Your task to perform on an android device: turn on improve location accuracy Image 0: 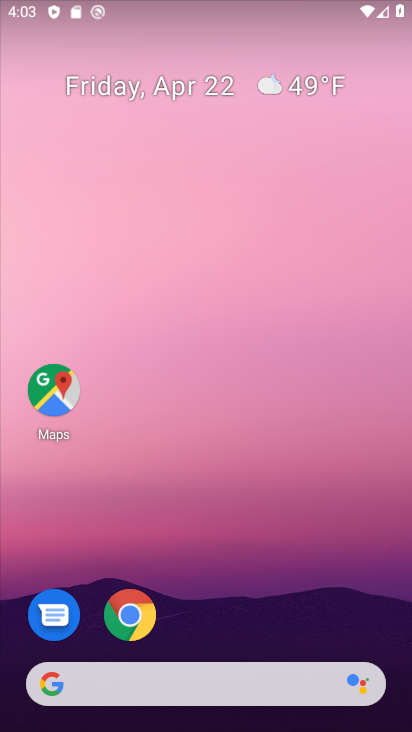
Step 0: drag from (209, 621) to (220, 245)
Your task to perform on an android device: turn on improve location accuracy Image 1: 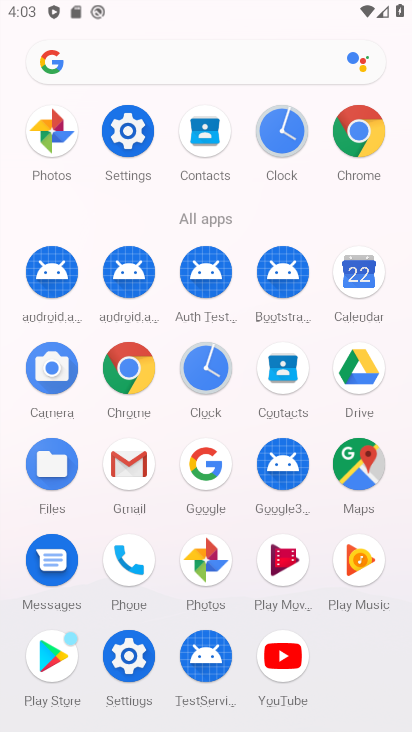
Step 1: click (109, 127)
Your task to perform on an android device: turn on improve location accuracy Image 2: 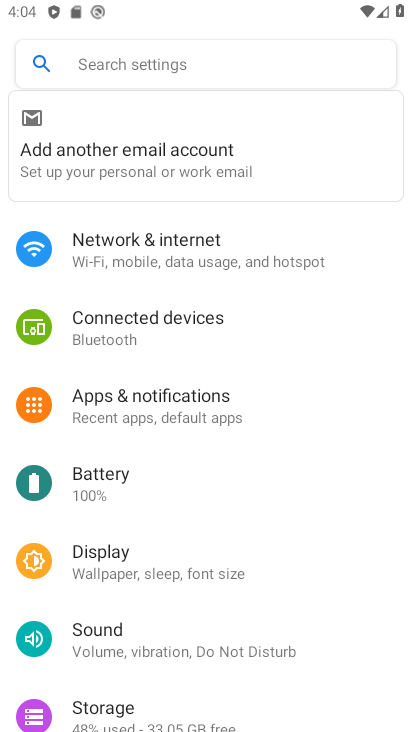
Step 2: drag from (196, 640) to (227, 210)
Your task to perform on an android device: turn on improve location accuracy Image 3: 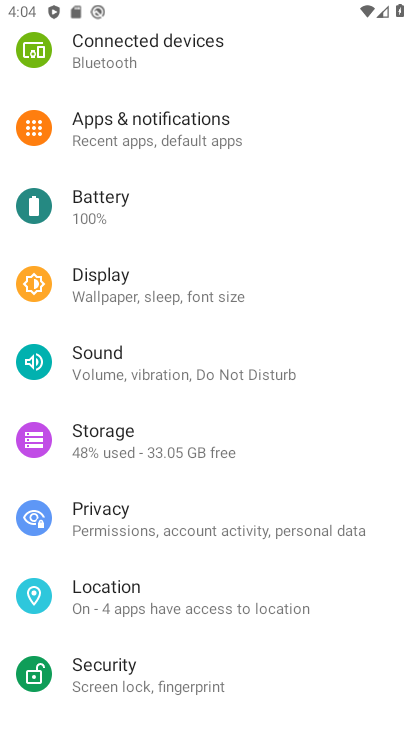
Step 3: click (145, 588)
Your task to perform on an android device: turn on improve location accuracy Image 4: 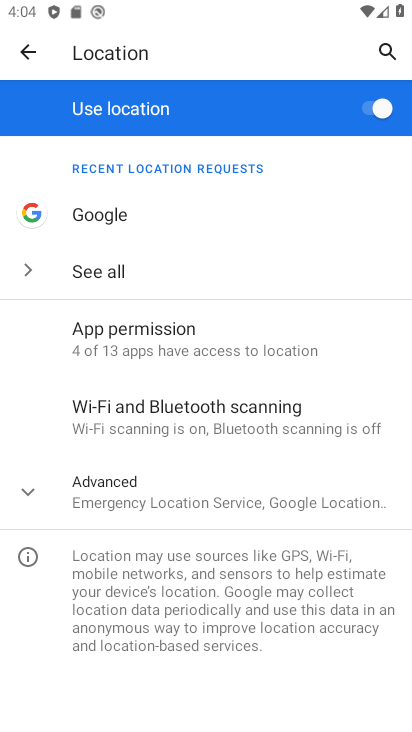
Step 4: drag from (251, 608) to (250, 329)
Your task to perform on an android device: turn on improve location accuracy Image 5: 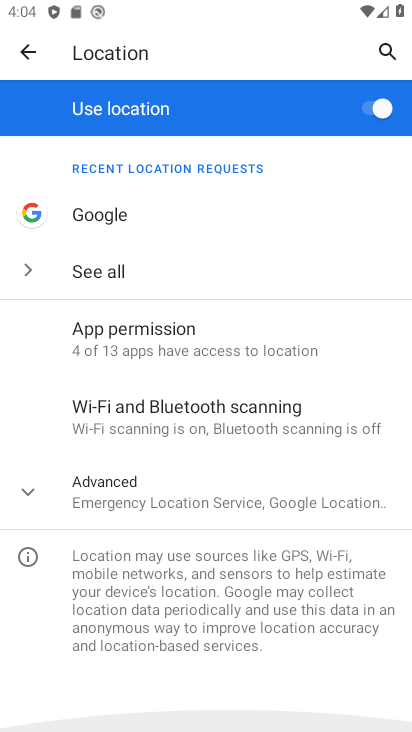
Step 5: click (151, 477)
Your task to perform on an android device: turn on improve location accuracy Image 6: 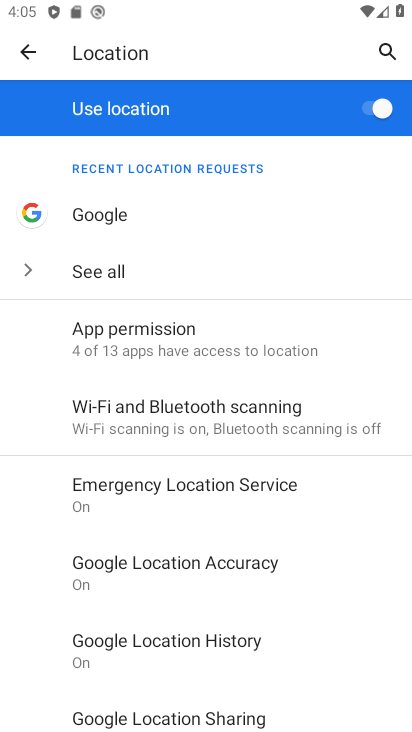
Step 6: drag from (214, 661) to (224, 438)
Your task to perform on an android device: turn on improve location accuracy Image 7: 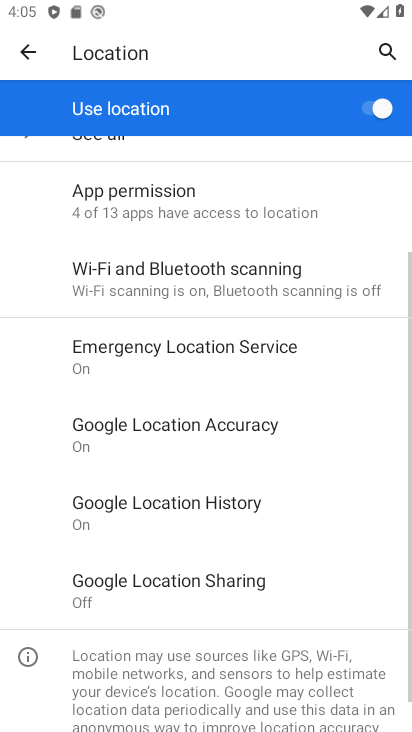
Step 7: click (224, 438)
Your task to perform on an android device: turn on improve location accuracy Image 8: 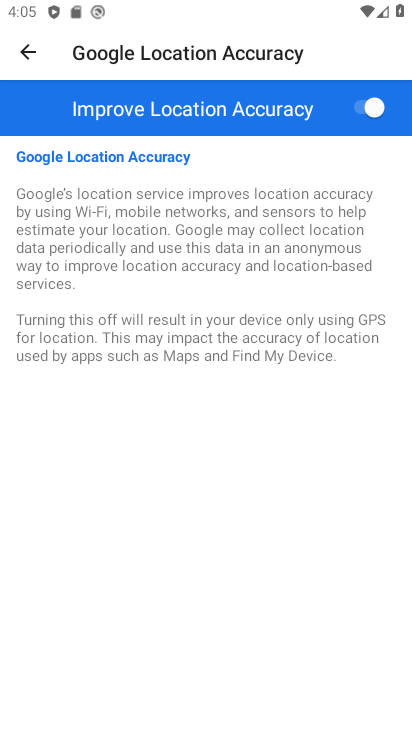
Step 8: task complete